Your task to perform on an android device: Open Maps and search for coffee Image 0: 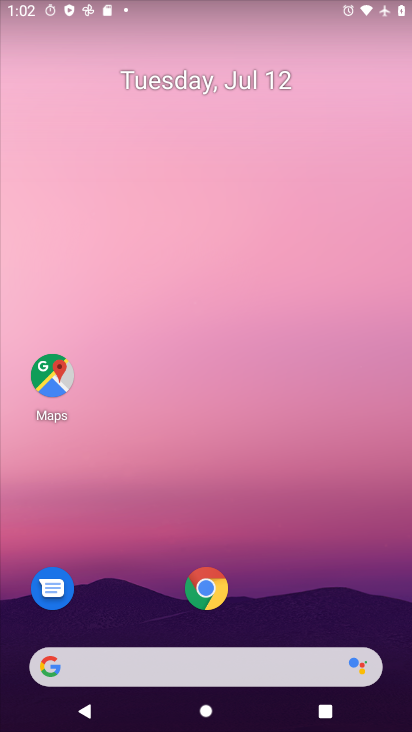
Step 0: click (54, 376)
Your task to perform on an android device: Open Maps and search for coffee Image 1: 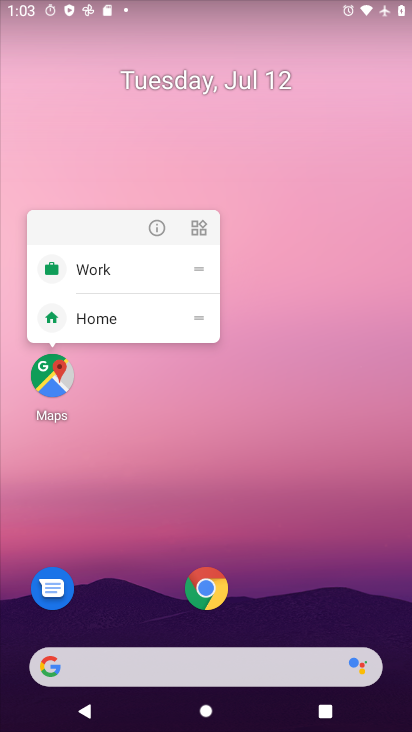
Step 1: click (57, 383)
Your task to perform on an android device: Open Maps and search for coffee Image 2: 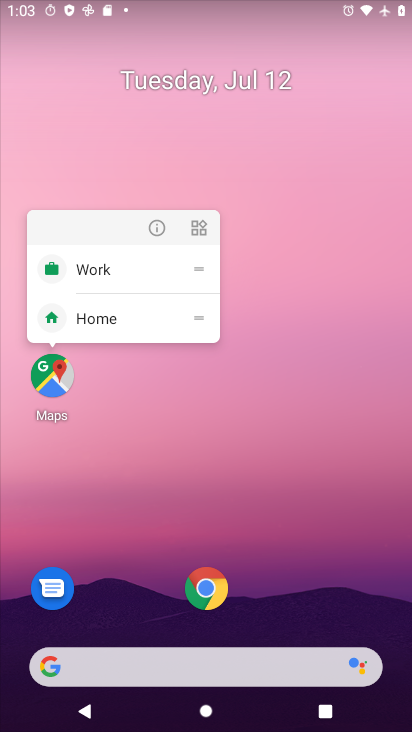
Step 2: click (57, 375)
Your task to perform on an android device: Open Maps and search for coffee Image 3: 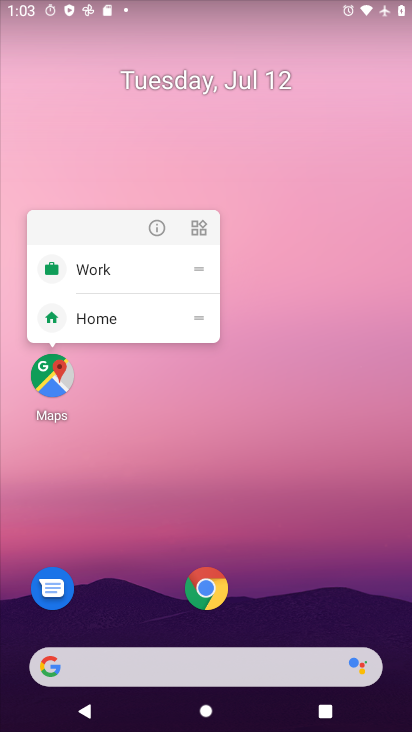
Step 3: click (57, 374)
Your task to perform on an android device: Open Maps and search for coffee Image 4: 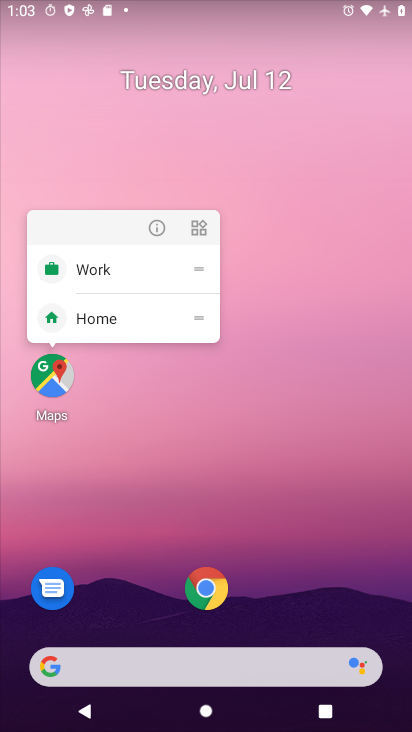
Step 4: click (57, 385)
Your task to perform on an android device: Open Maps and search for coffee Image 5: 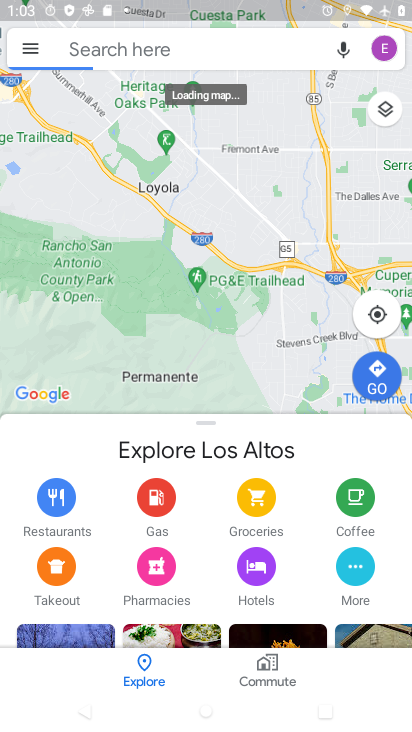
Step 5: click (141, 38)
Your task to perform on an android device: Open Maps and search for coffee Image 6: 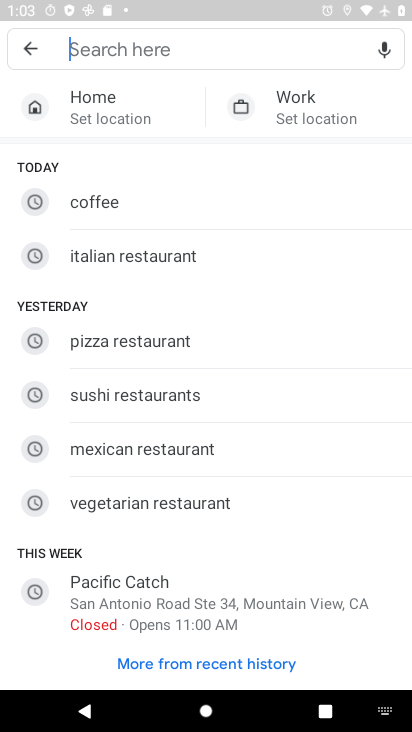
Step 6: click (111, 193)
Your task to perform on an android device: Open Maps and search for coffee Image 7: 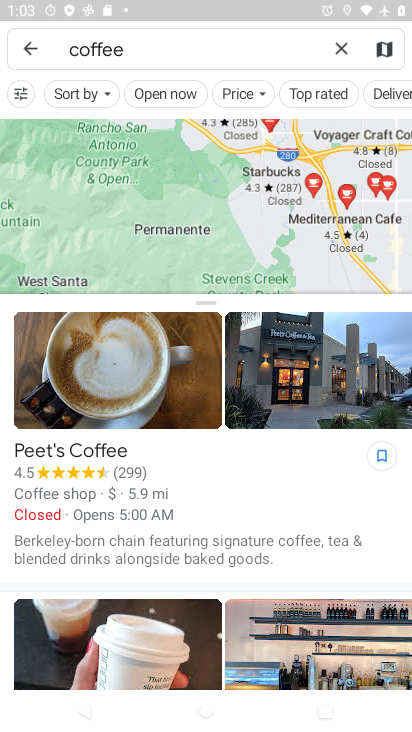
Step 7: task complete